Your task to perform on an android device: Go to display settings Image 0: 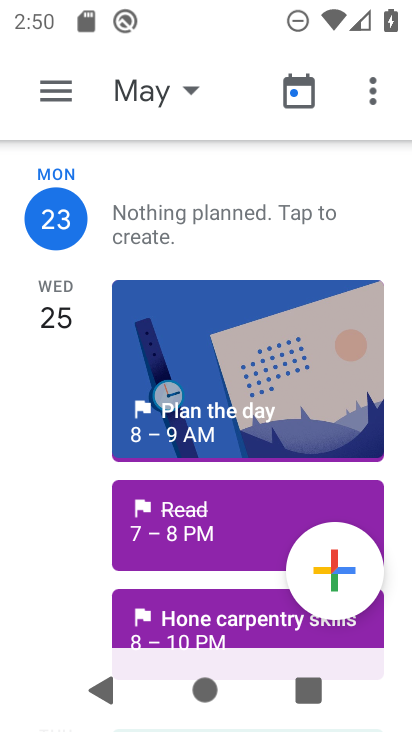
Step 0: press home button
Your task to perform on an android device: Go to display settings Image 1: 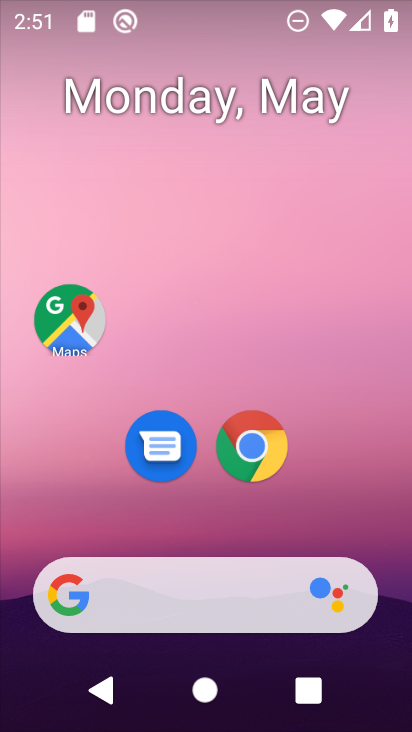
Step 1: drag from (189, 516) to (212, 103)
Your task to perform on an android device: Go to display settings Image 2: 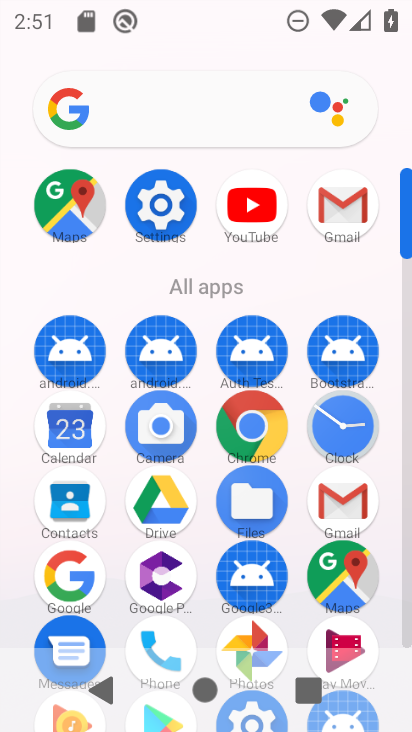
Step 2: click (143, 199)
Your task to perform on an android device: Go to display settings Image 3: 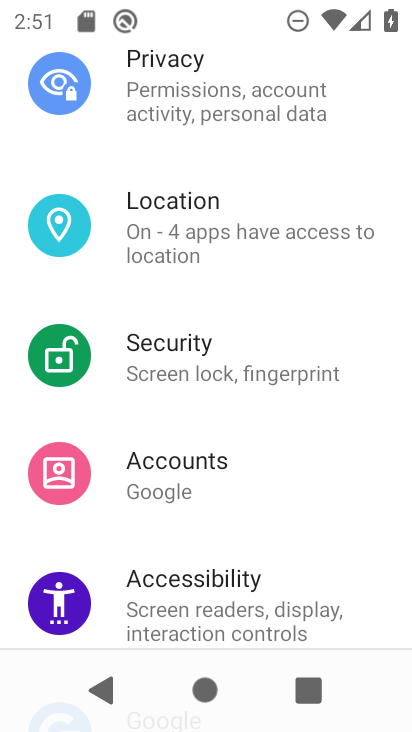
Step 3: drag from (137, 540) to (178, 178)
Your task to perform on an android device: Go to display settings Image 4: 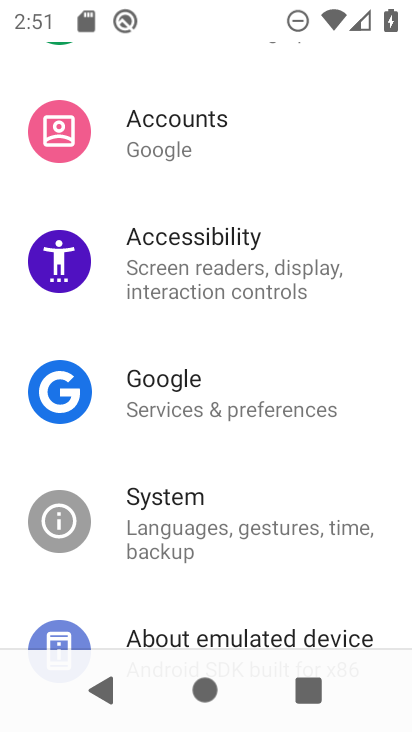
Step 4: drag from (130, 563) to (161, 203)
Your task to perform on an android device: Go to display settings Image 5: 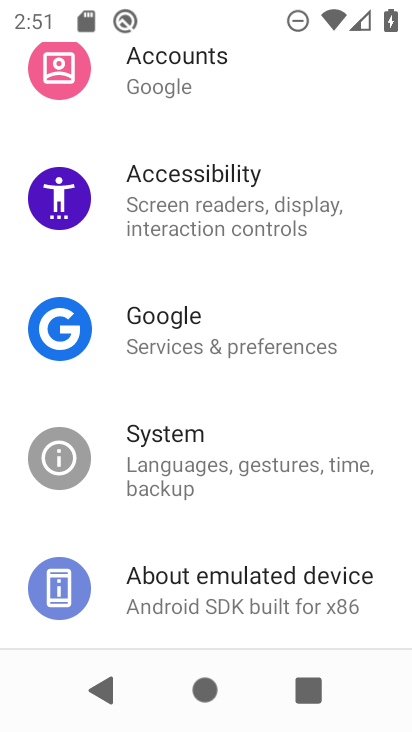
Step 5: drag from (175, 237) to (202, 706)
Your task to perform on an android device: Go to display settings Image 6: 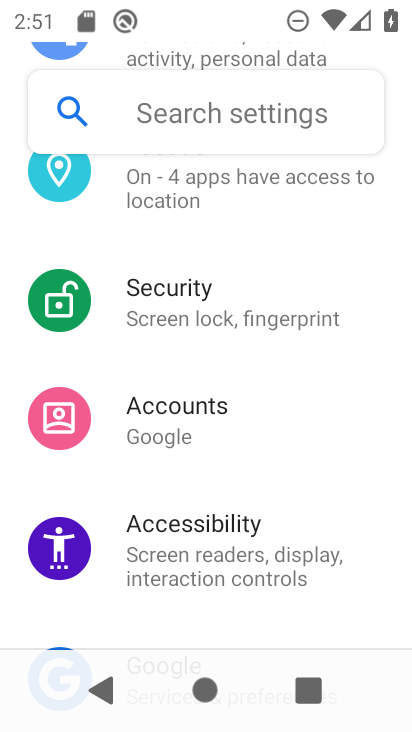
Step 6: drag from (119, 148) to (160, 591)
Your task to perform on an android device: Go to display settings Image 7: 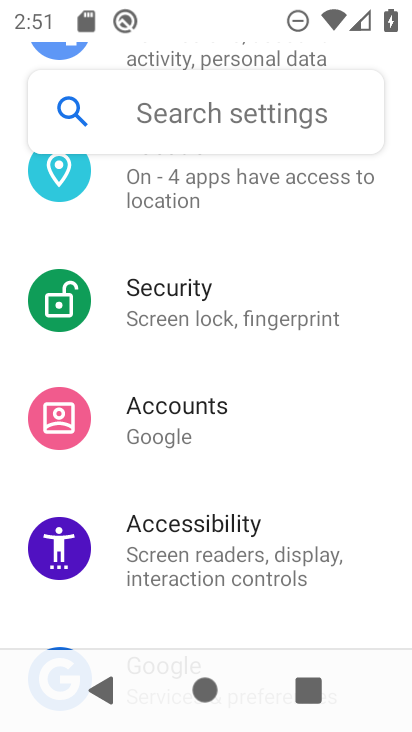
Step 7: drag from (131, 283) to (165, 683)
Your task to perform on an android device: Go to display settings Image 8: 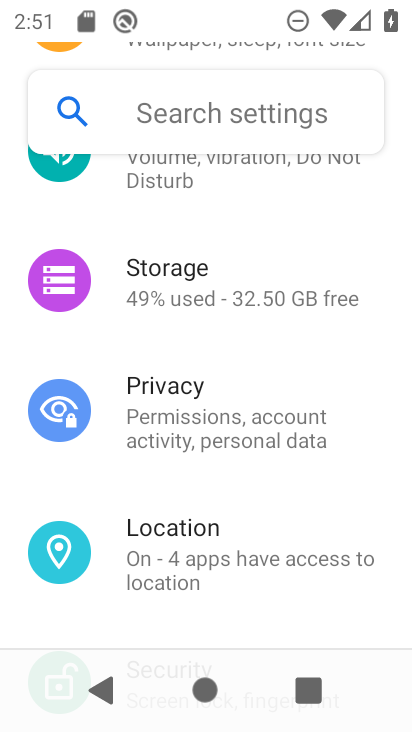
Step 8: drag from (139, 192) to (166, 649)
Your task to perform on an android device: Go to display settings Image 9: 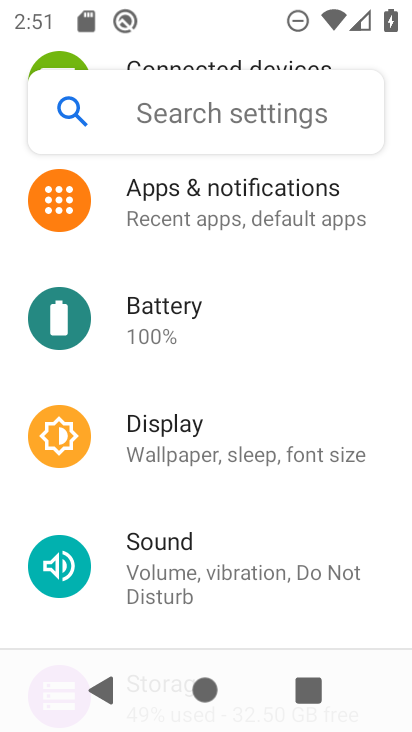
Step 9: click (182, 440)
Your task to perform on an android device: Go to display settings Image 10: 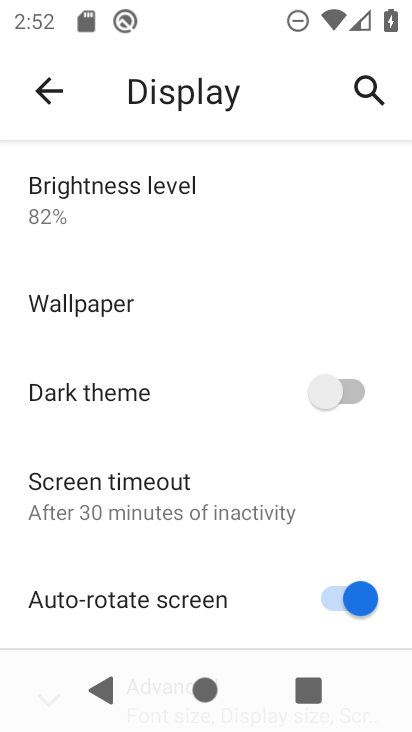
Step 10: task complete